Your task to perform on an android device: Go to wifi settings Image 0: 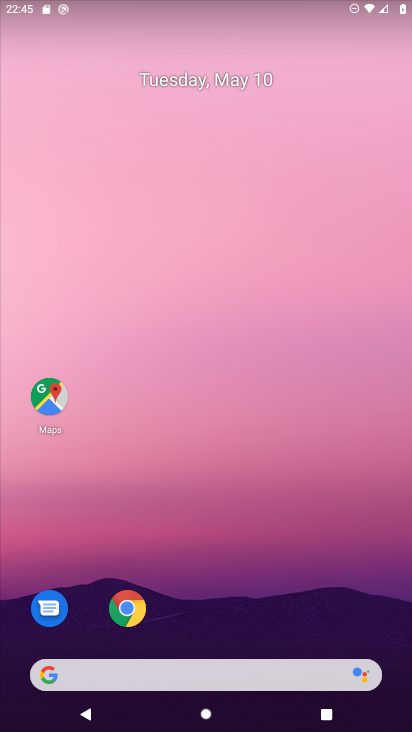
Step 0: click (198, 629)
Your task to perform on an android device: Go to wifi settings Image 1: 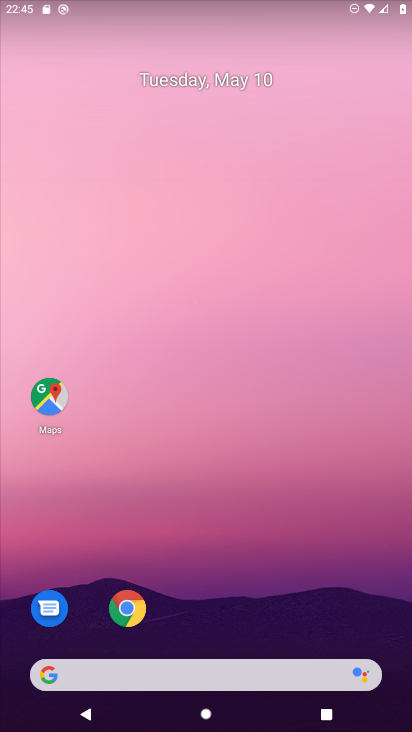
Step 1: drag from (265, 652) to (225, 205)
Your task to perform on an android device: Go to wifi settings Image 2: 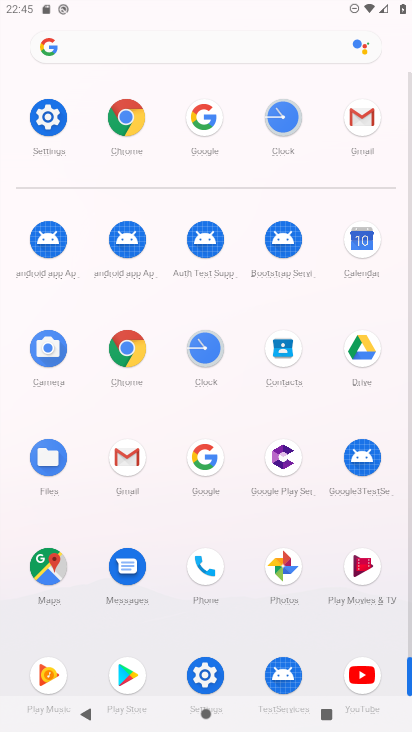
Step 2: click (50, 108)
Your task to perform on an android device: Go to wifi settings Image 3: 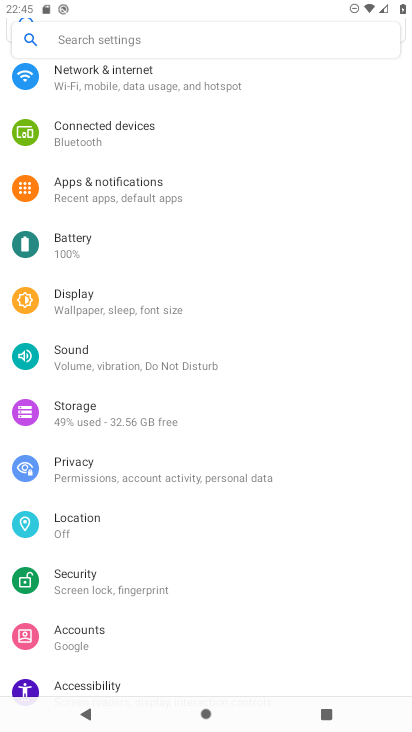
Step 3: click (80, 72)
Your task to perform on an android device: Go to wifi settings Image 4: 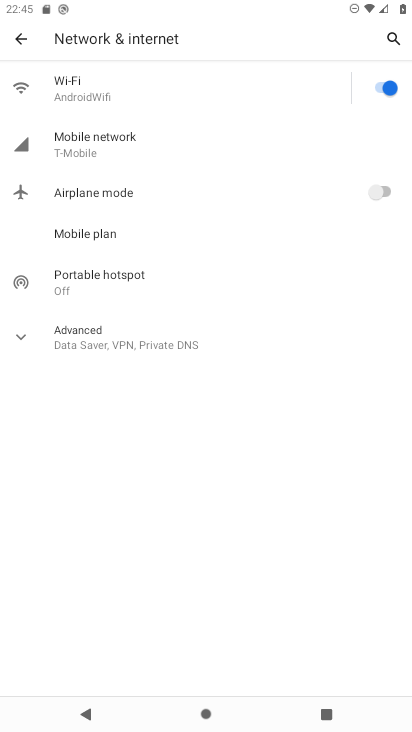
Step 4: click (97, 93)
Your task to perform on an android device: Go to wifi settings Image 5: 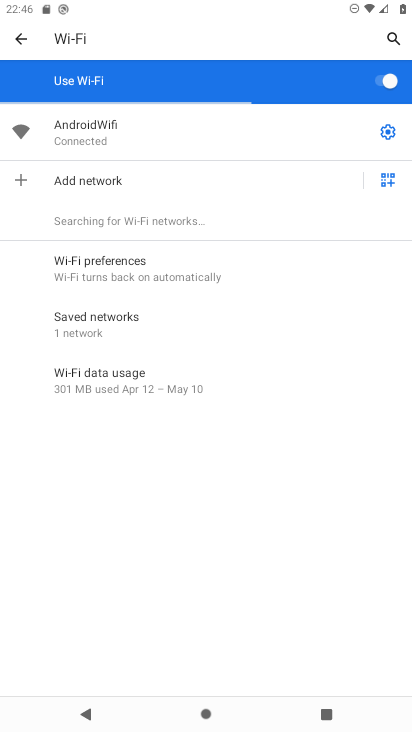
Step 5: task complete